Your task to perform on an android device: Turn off the flashlight Image 0: 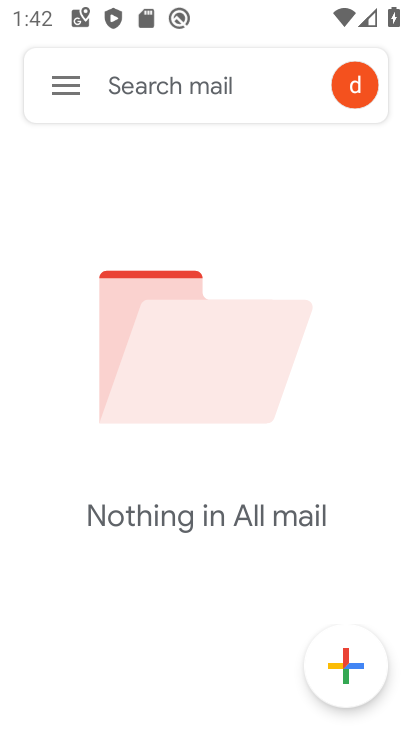
Step 0: press home button
Your task to perform on an android device: Turn off the flashlight Image 1: 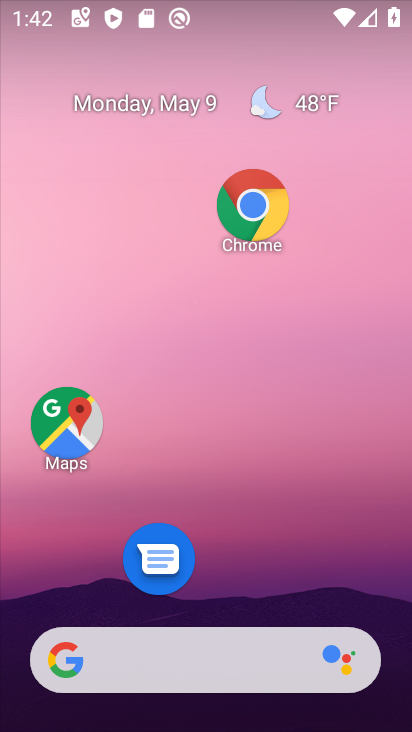
Step 1: drag from (329, 400) to (351, 214)
Your task to perform on an android device: Turn off the flashlight Image 2: 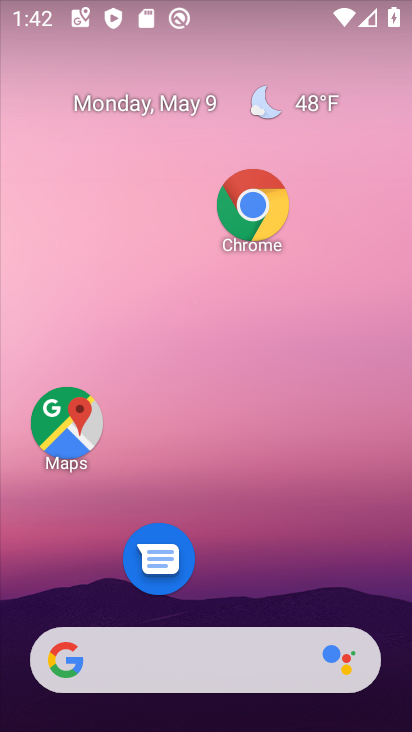
Step 2: drag from (277, 588) to (342, 275)
Your task to perform on an android device: Turn off the flashlight Image 3: 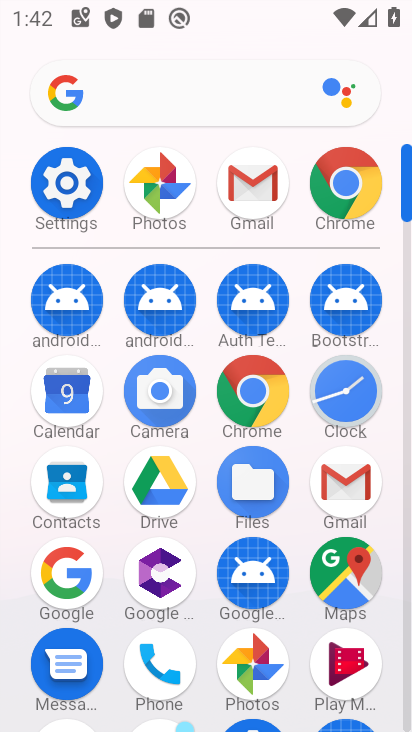
Step 3: click (55, 191)
Your task to perform on an android device: Turn off the flashlight Image 4: 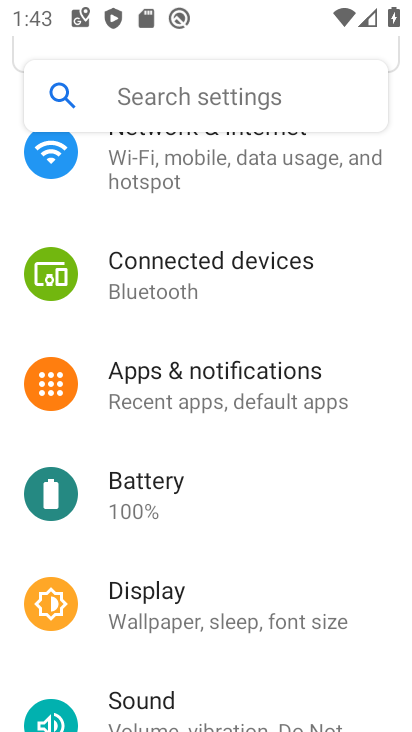
Step 4: task complete